Your task to perform on an android device: Find coffee shops on Maps Image 0: 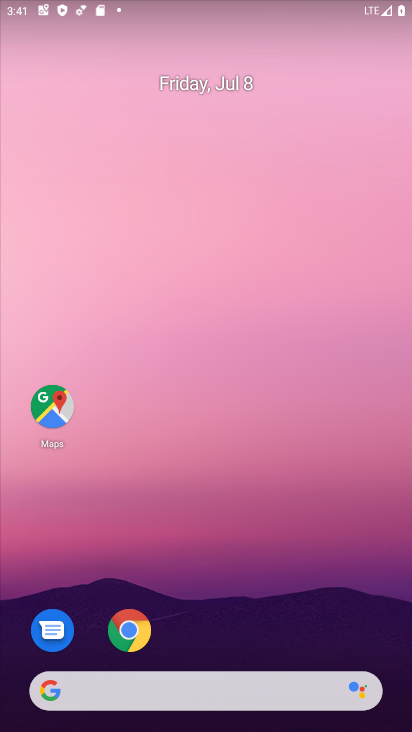
Step 0: click (50, 408)
Your task to perform on an android device: Find coffee shops on Maps Image 1: 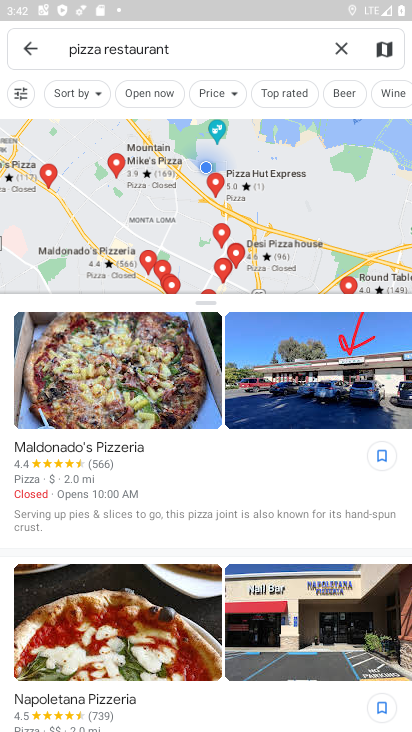
Step 1: click (338, 49)
Your task to perform on an android device: Find coffee shops on Maps Image 2: 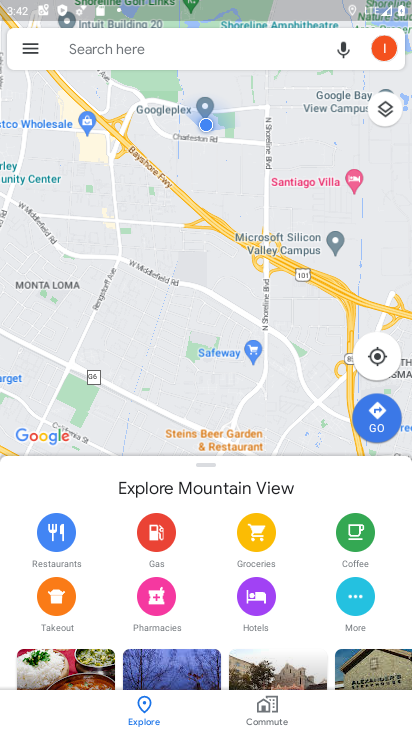
Step 2: click (234, 46)
Your task to perform on an android device: Find coffee shops on Maps Image 3: 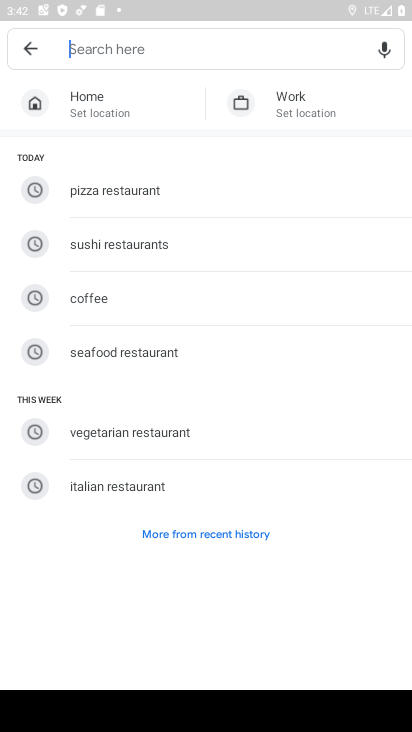
Step 3: type "coffee shops "
Your task to perform on an android device: Find coffee shops on Maps Image 4: 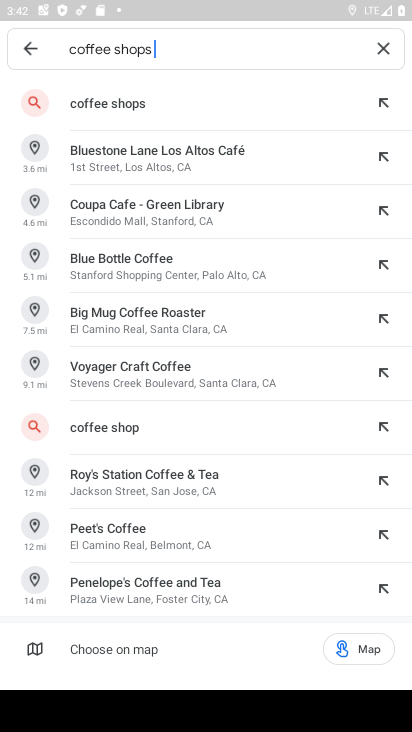
Step 4: click (120, 107)
Your task to perform on an android device: Find coffee shops on Maps Image 5: 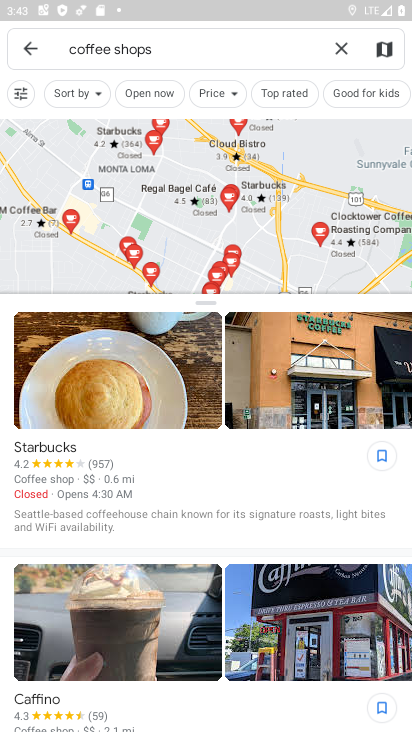
Step 5: task complete